Your task to perform on an android device: Check the news Image 0: 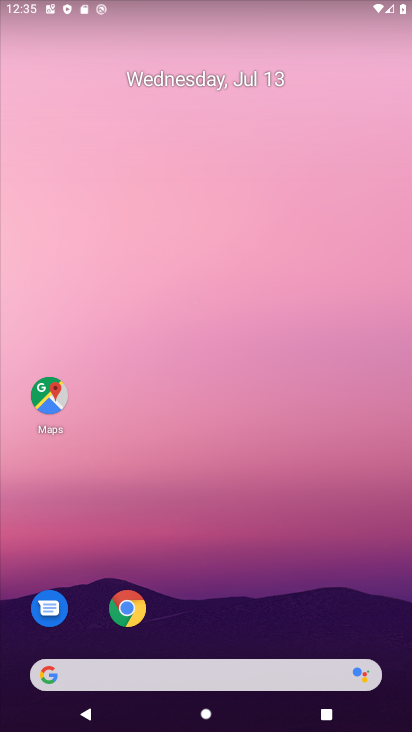
Step 0: click (161, 666)
Your task to perform on an android device: Check the news Image 1: 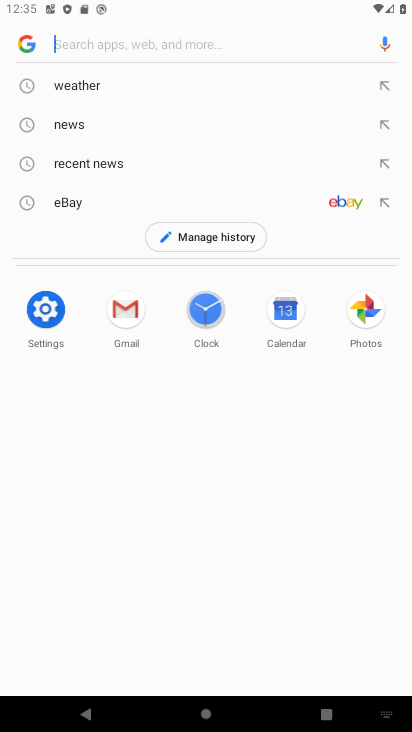
Step 1: click (85, 123)
Your task to perform on an android device: Check the news Image 2: 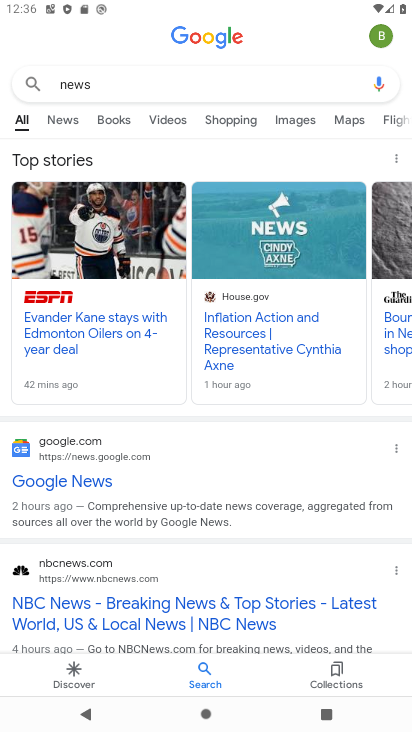
Step 2: task complete